Your task to perform on an android device: delete location history Image 0: 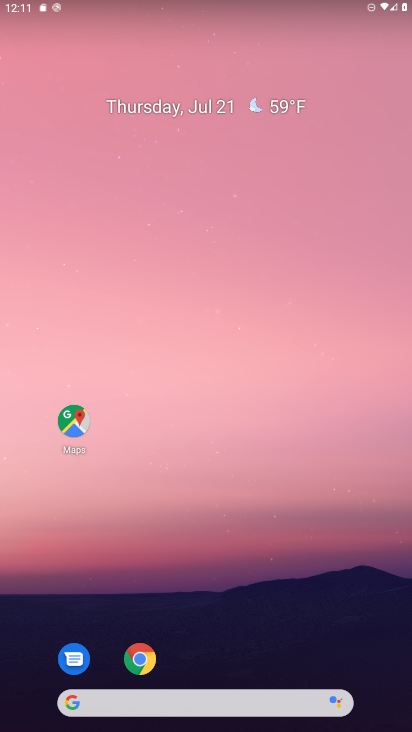
Step 0: drag from (18, 665) to (337, 127)
Your task to perform on an android device: delete location history Image 1: 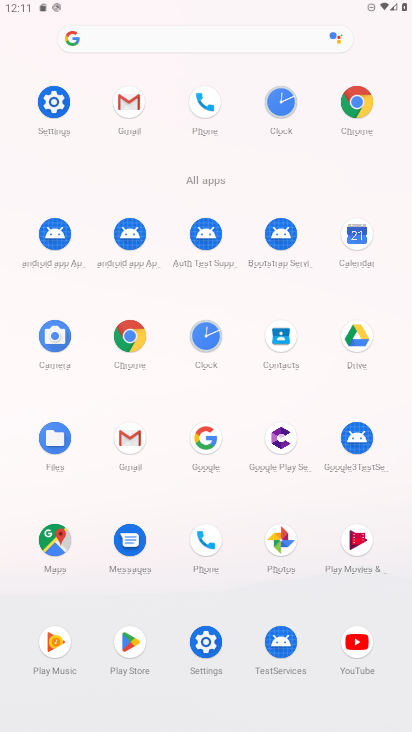
Step 1: click (58, 110)
Your task to perform on an android device: delete location history Image 2: 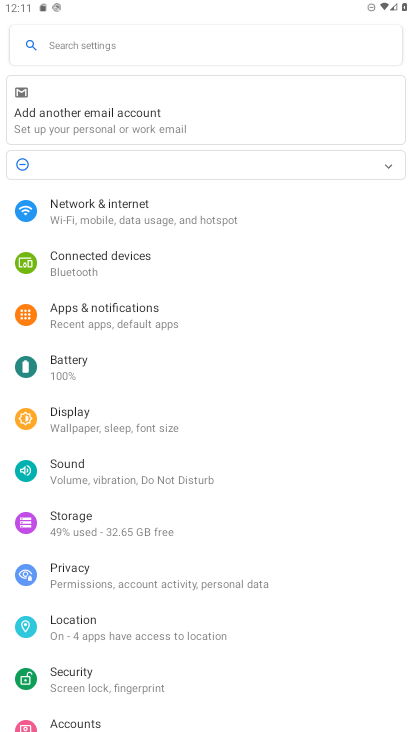
Step 2: click (119, 632)
Your task to perform on an android device: delete location history Image 3: 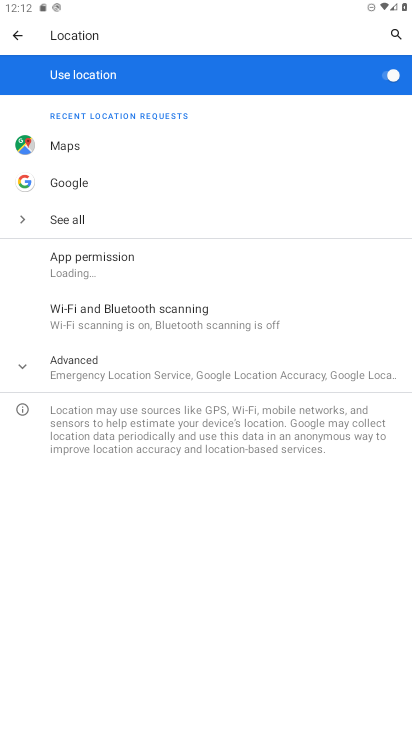
Step 3: click (109, 364)
Your task to perform on an android device: delete location history Image 4: 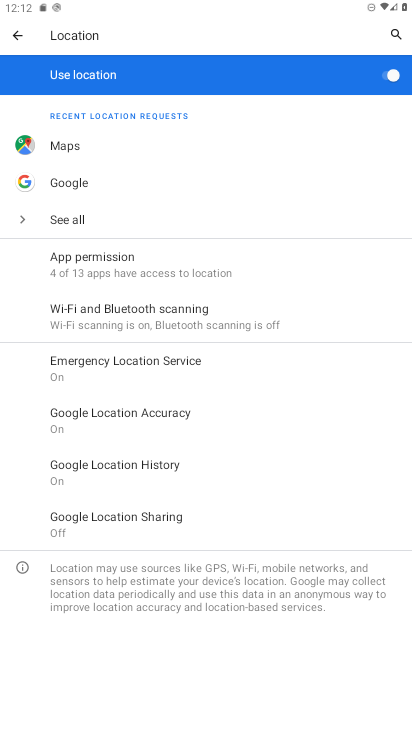
Step 4: click (144, 469)
Your task to perform on an android device: delete location history Image 5: 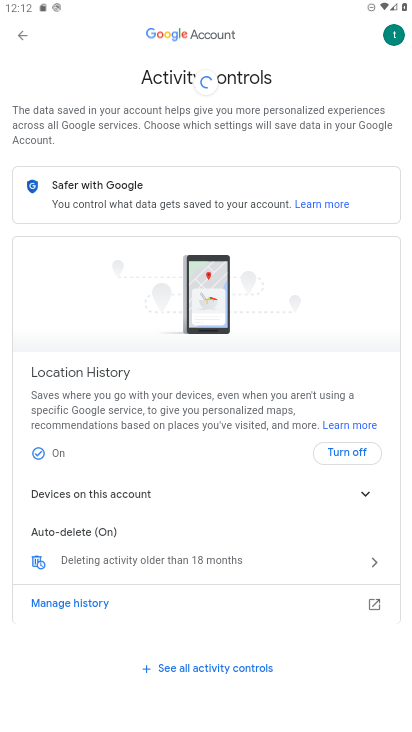
Step 5: click (175, 553)
Your task to perform on an android device: delete location history Image 6: 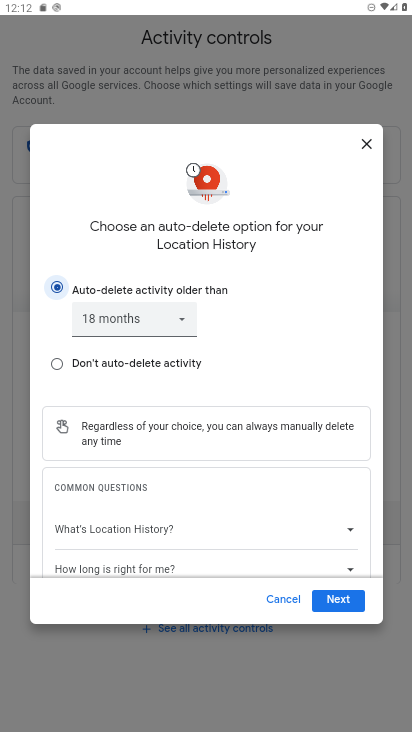
Step 6: click (338, 601)
Your task to perform on an android device: delete location history Image 7: 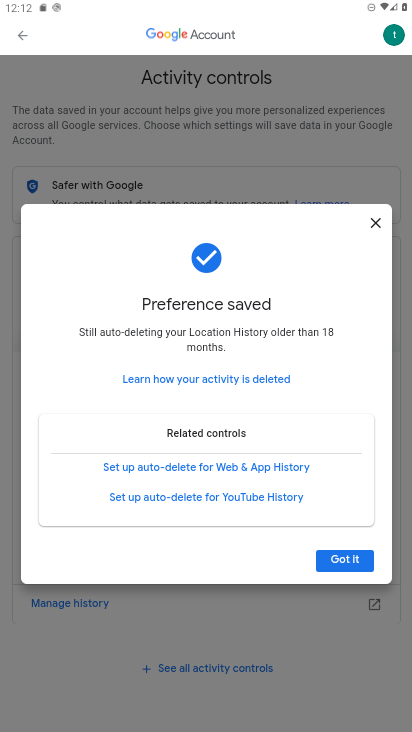
Step 7: click (333, 552)
Your task to perform on an android device: delete location history Image 8: 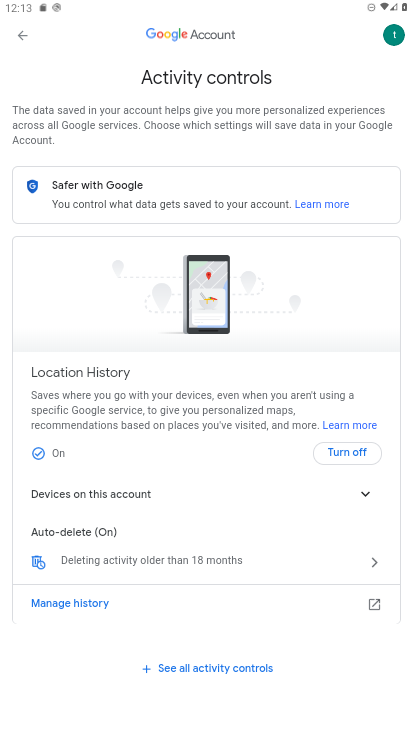
Step 8: task complete